Your task to perform on an android device: Open Wikipedia Image 0: 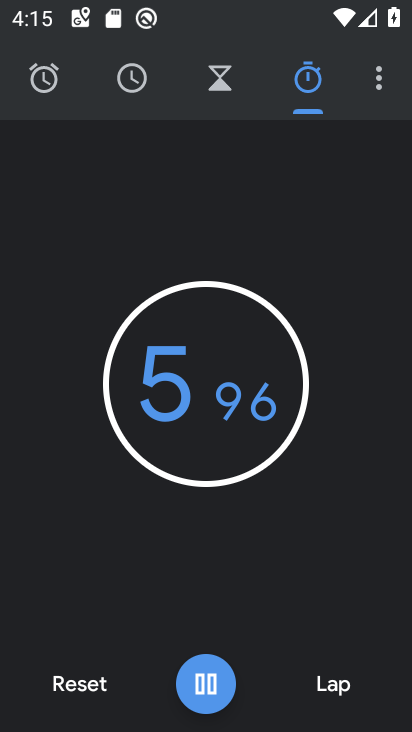
Step 0: press home button
Your task to perform on an android device: Open Wikipedia Image 1: 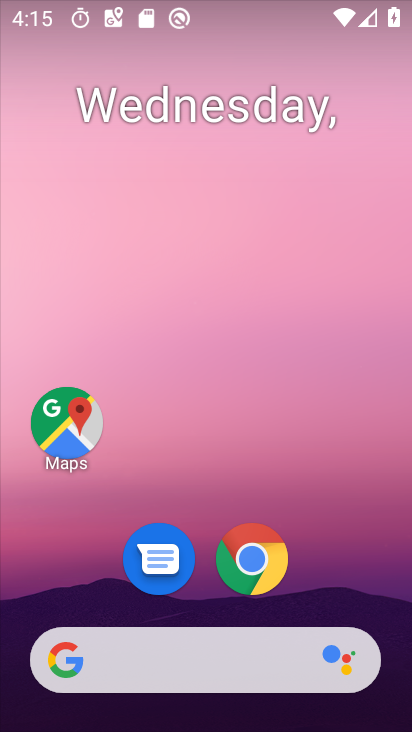
Step 1: click (260, 551)
Your task to perform on an android device: Open Wikipedia Image 2: 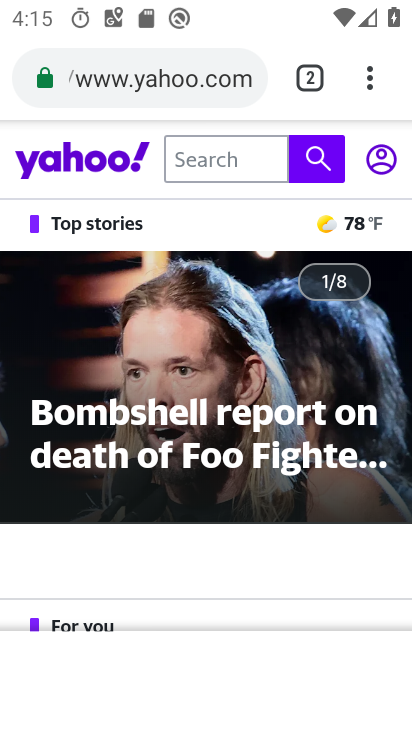
Step 2: click (304, 70)
Your task to perform on an android device: Open Wikipedia Image 3: 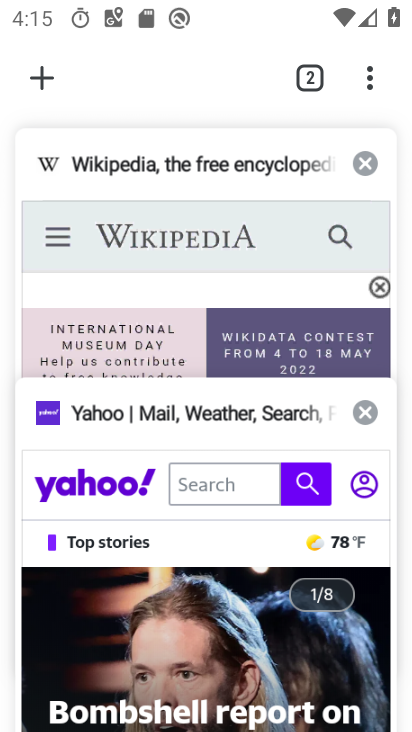
Step 3: click (163, 167)
Your task to perform on an android device: Open Wikipedia Image 4: 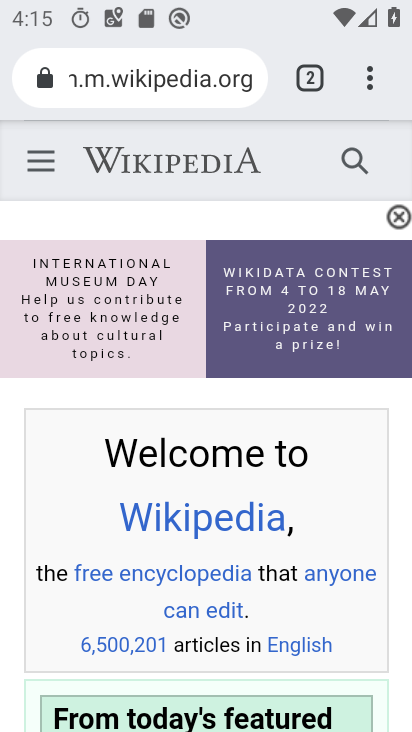
Step 4: task complete